Your task to perform on an android device: Open Google Image 0: 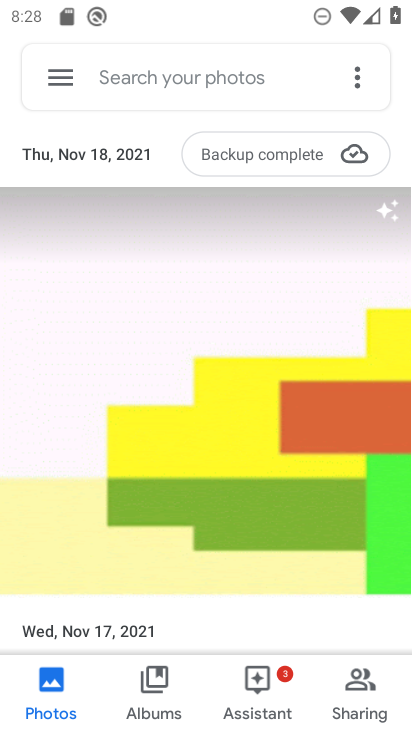
Step 0: press home button
Your task to perform on an android device: Open Google Image 1: 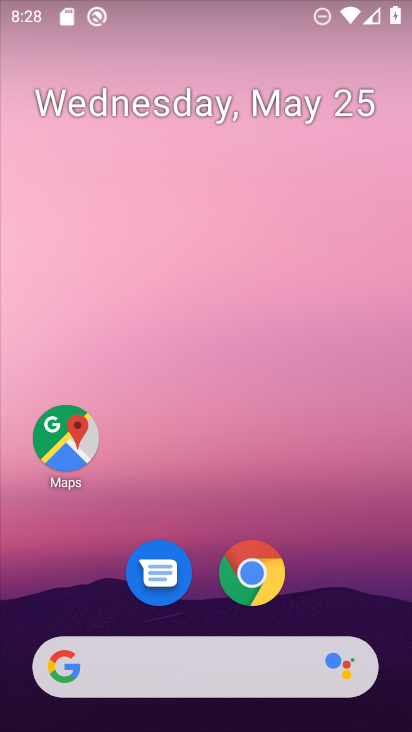
Step 1: drag from (391, 696) to (376, 129)
Your task to perform on an android device: Open Google Image 2: 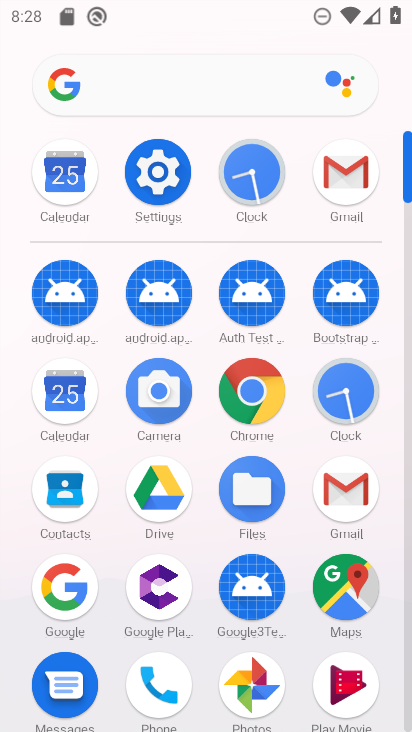
Step 2: click (65, 590)
Your task to perform on an android device: Open Google Image 3: 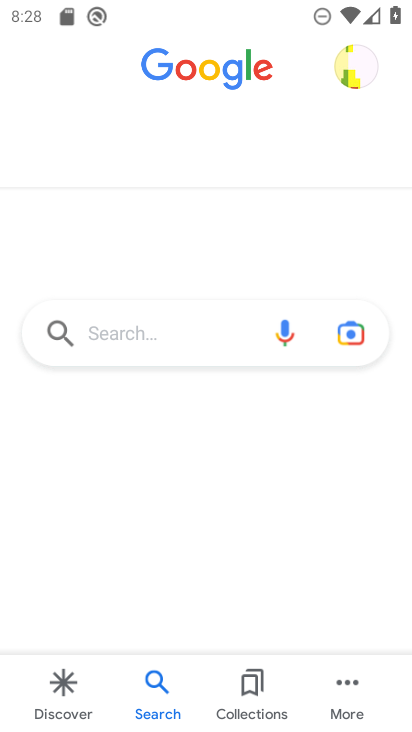
Step 3: task complete